Your task to perform on an android device: Open eBay Image 0: 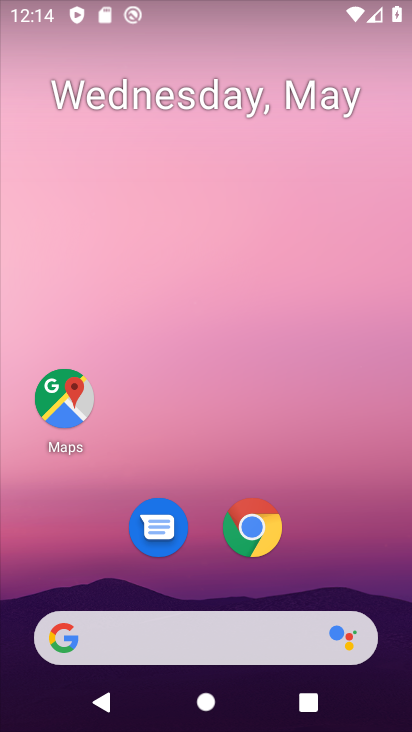
Step 0: click (252, 544)
Your task to perform on an android device: Open eBay Image 1: 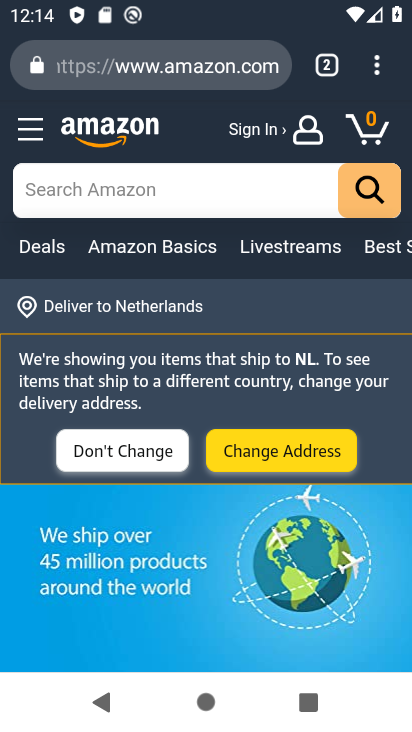
Step 1: click (326, 59)
Your task to perform on an android device: Open eBay Image 2: 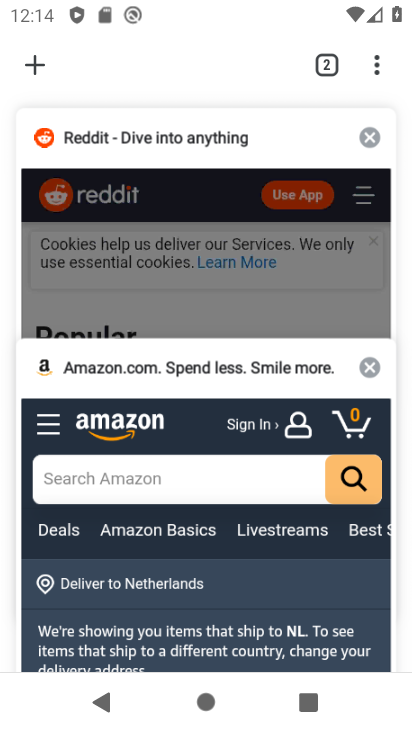
Step 2: click (32, 63)
Your task to perform on an android device: Open eBay Image 3: 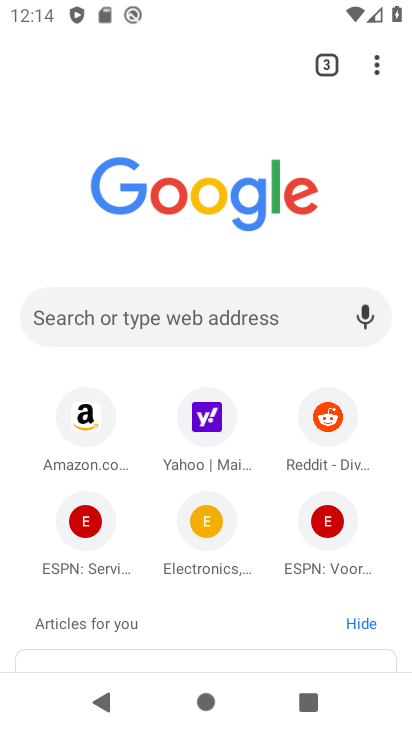
Step 3: click (182, 301)
Your task to perform on an android device: Open eBay Image 4: 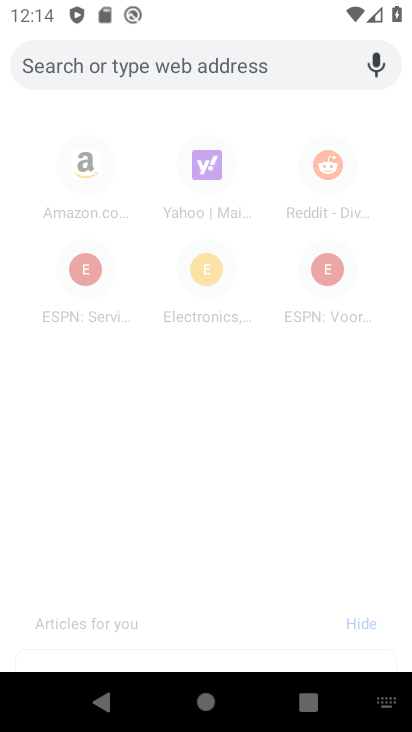
Step 4: type "eBay"
Your task to perform on an android device: Open eBay Image 5: 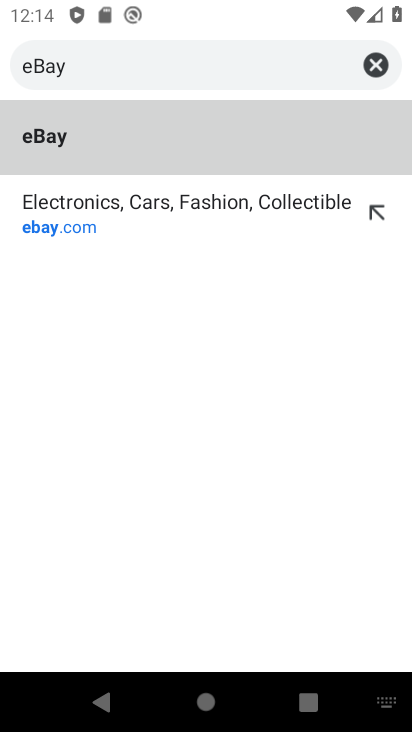
Step 5: click (150, 129)
Your task to perform on an android device: Open eBay Image 6: 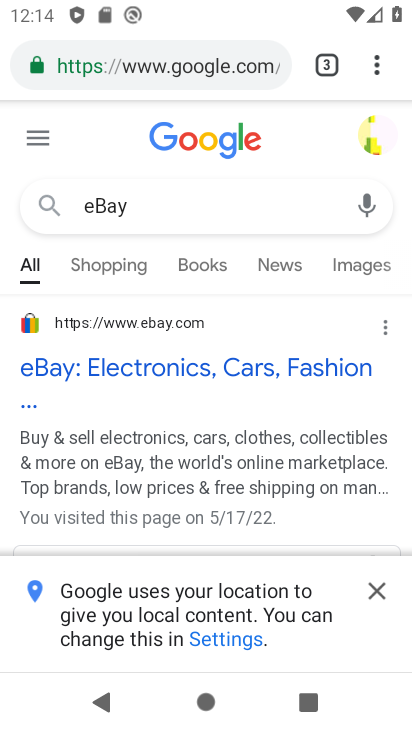
Step 6: click (123, 361)
Your task to perform on an android device: Open eBay Image 7: 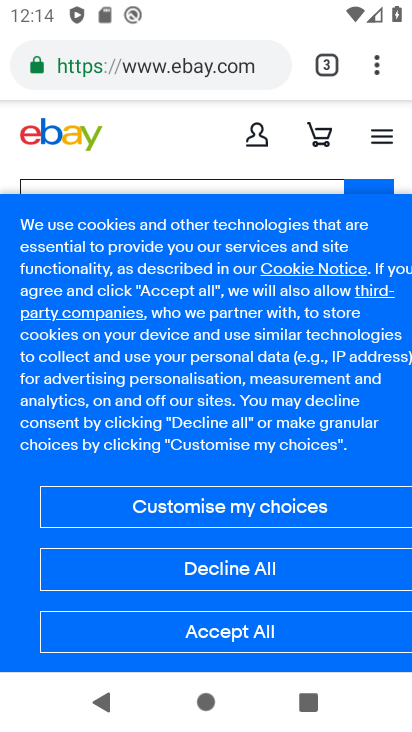
Step 7: task complete